Your task to perform on an android device: Go to ESPN.com Image 0: 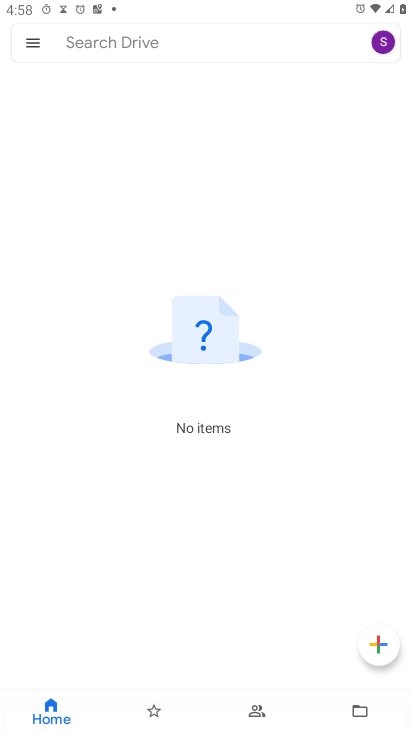
Step 0: press home button
Your task to perform on an android device: Go to ESPN.com Image 1: 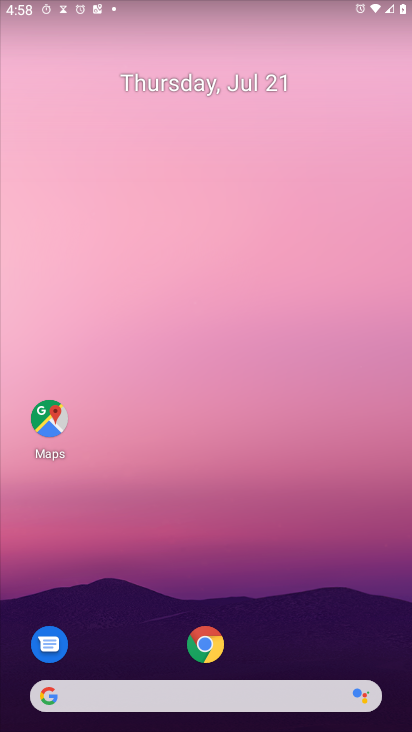
Step 1: click (48, 690)
Your task to perform on an android device: Go to ESPN.com Image 2: 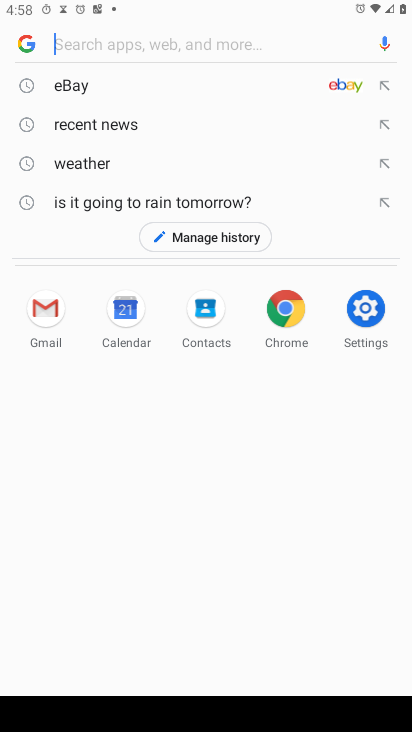
Step 2: type " ESPN.com"
Your task to perform on an android device: Go to ESPN.com Image 3: 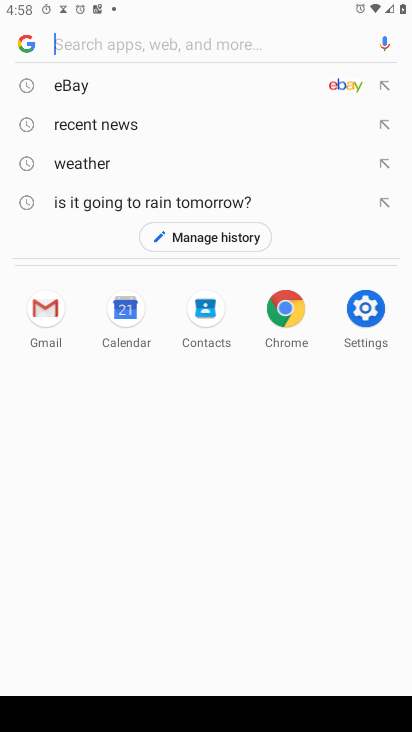
Step 3: click (61, 38)
Your task to perform on an android device: Go to ESPN.com Image 4: 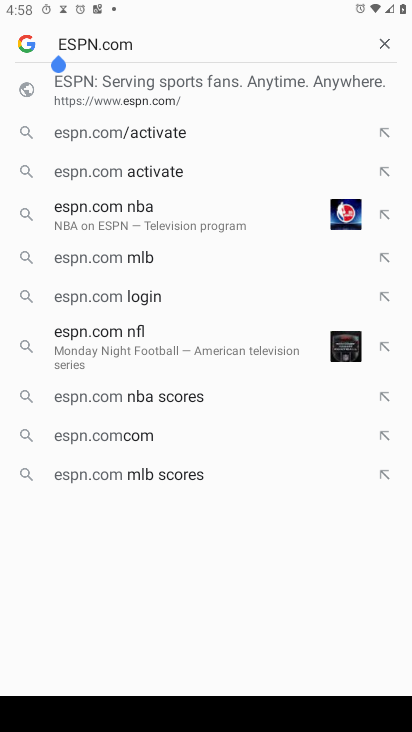
Step 4: press enter
Your task to perform on an android device: Go to ESPN.com Image 5: 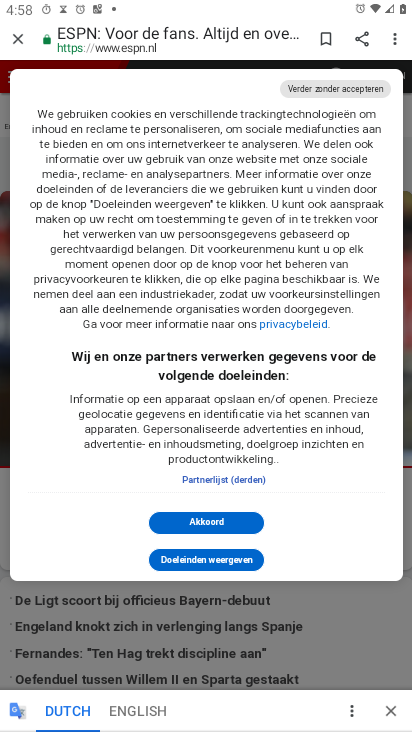
Step 5: click (191, 518)
Your task to perform on an android device: Go to ESPN.com Image 6: 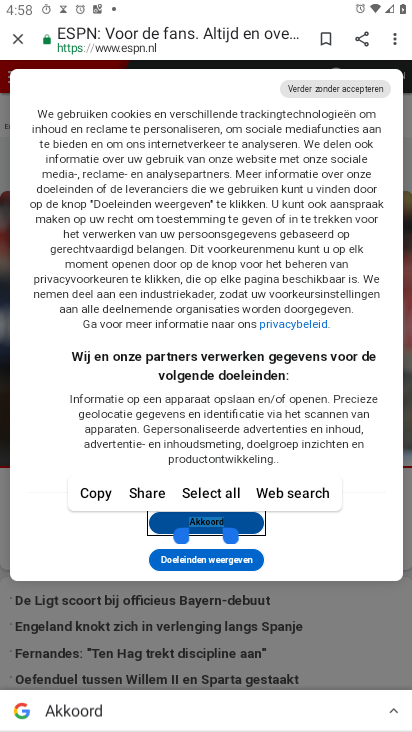
Step 6: click (197, 523)
Your task to perform on an android device: Go to ESPN.com Image 7: 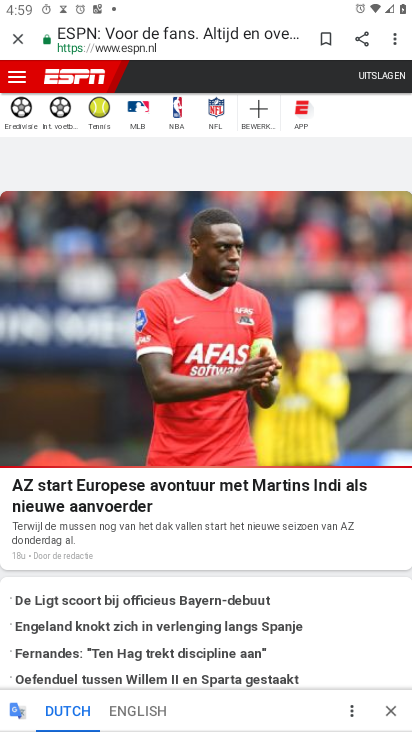
Step 7: task complete